Your task to perform on an android device: change the clock display to digital Image 0: 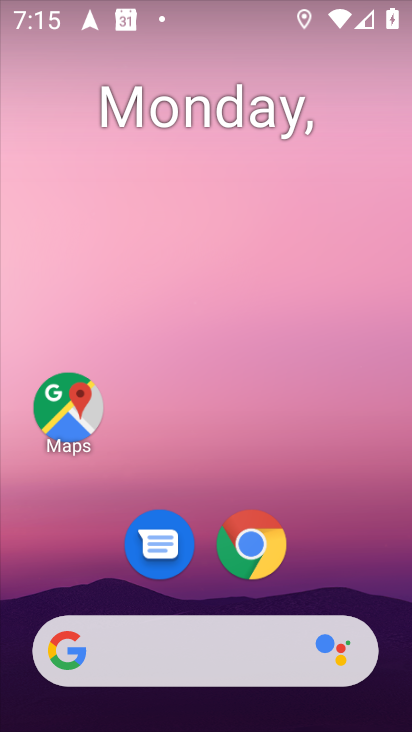
Step 0: drag from (348, 501) to (292, 40)
Your task to perform on an android device: change the clock display to digital Image 1: 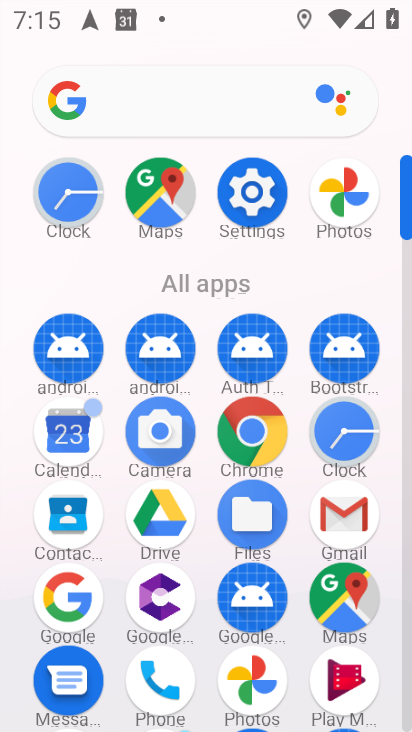
Step 1: click (333, 426)
Your task to perform on an android device: change the clock display to digital Image 2: 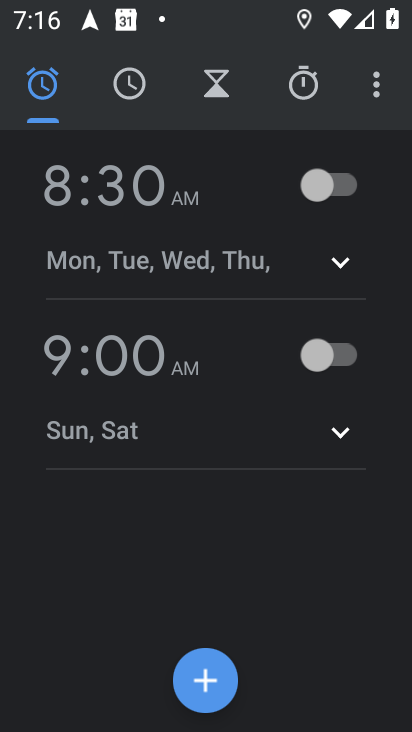
Step 2: click (374, 84)
Your task to perform on an android device: change the clock display to digital Image 3: 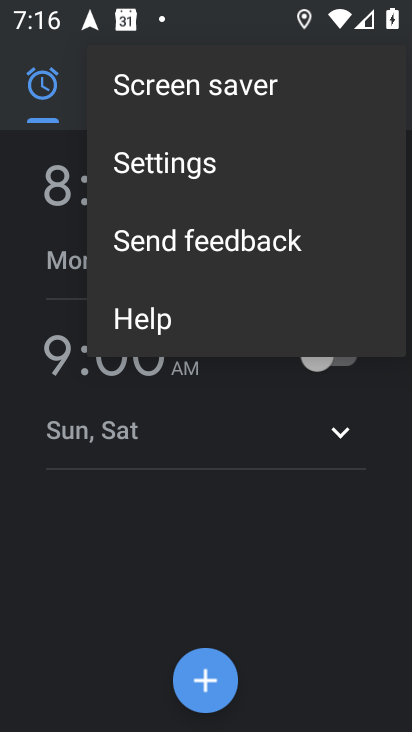
Step 3: click (185, 158)
Your task to perform on an android device: change the clock display to digital Image 4: 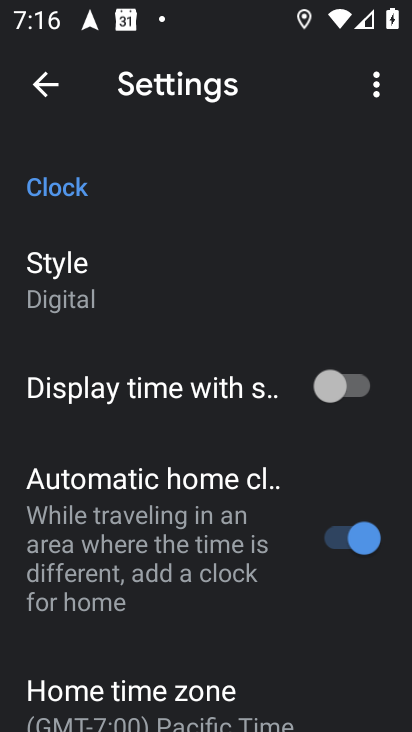
Step 4: task complete